Your task to perform on an android device: Open the map Image 0: 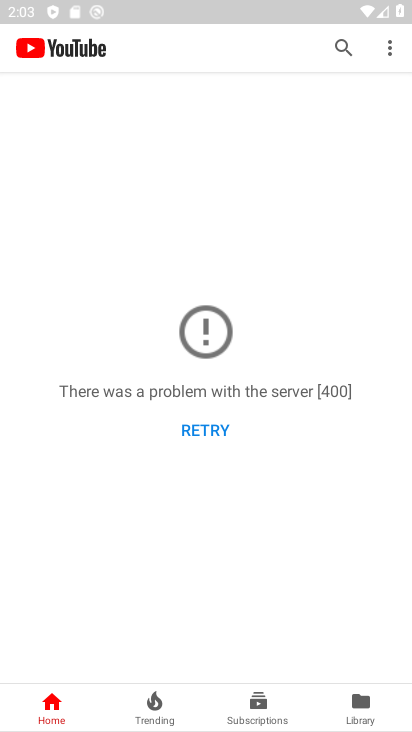
Step 0: press home button
Your task to perform on an android device: Open the map Image 1: 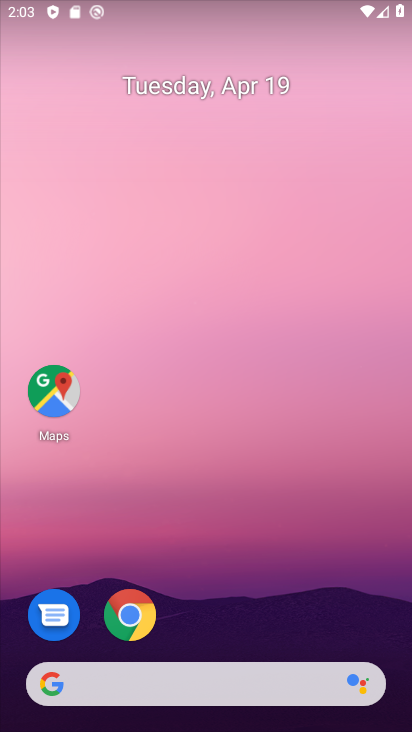
Step 1: drag from (228, 479) to (281, 254)
Your task to perform on an android device: Open the map Image 2: 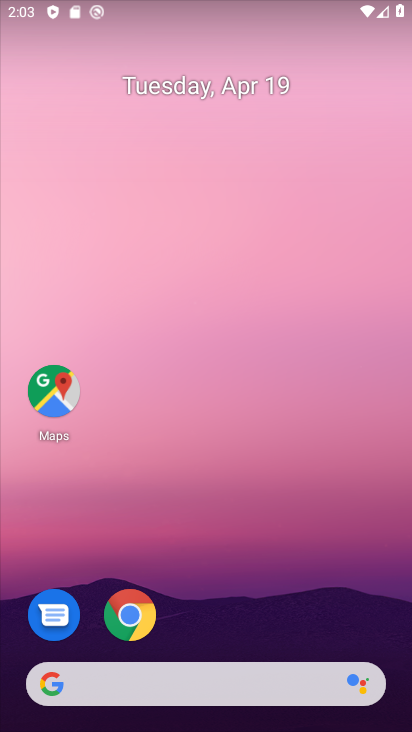
Step 2: drag from (233, 634) to (295, 130)
Your task to perform on an android device: Open the map Image 3: 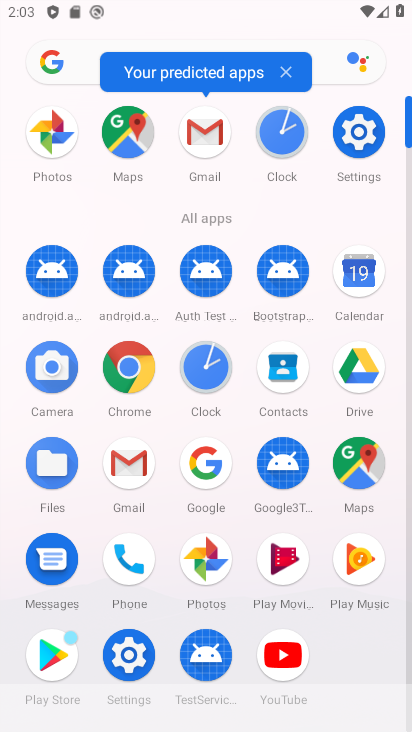
Step 3: click (363, 460)
Your task to perform on an android device: Open the map Image 4: 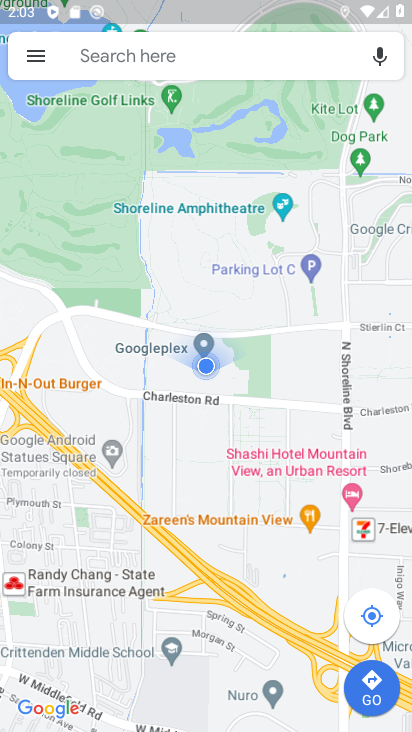
Step 4: task complete